Your task to perform on an android device: Open eBay Image 0: 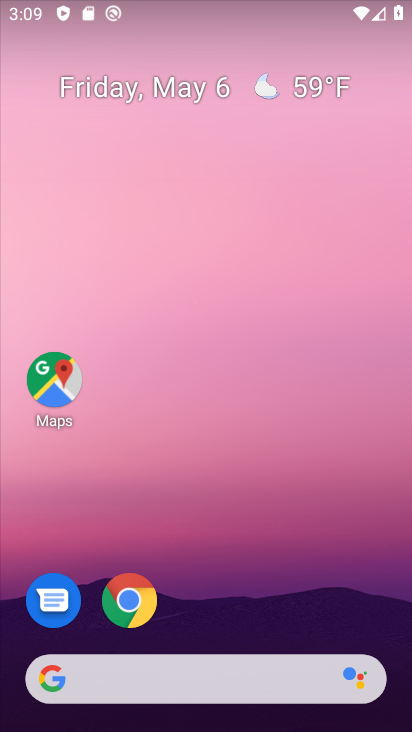
Step 0: click (143, 596)
Your task to perform on an android device: Open eBay Image 1: 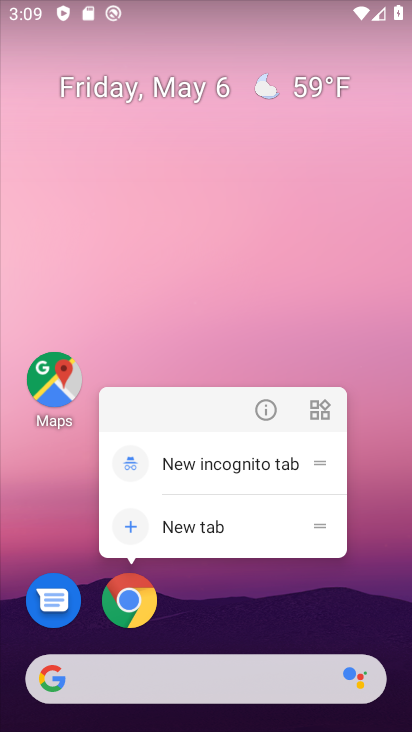
Step 1: click (131, 604)
Your task to perform on an android device: Open eBay Image 2: 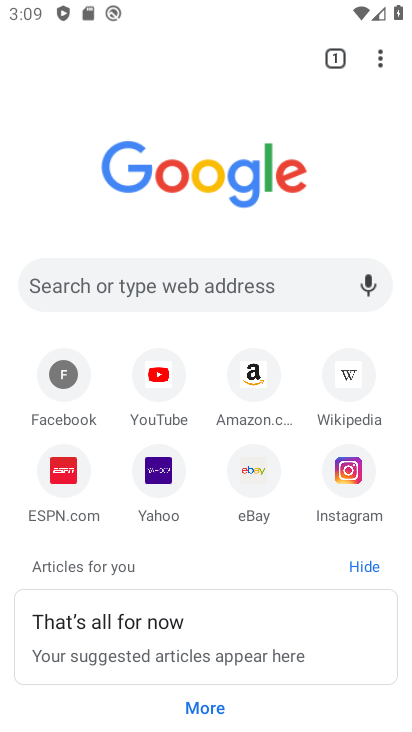
Step 2: click (196, 305)
Your task to perform on an android device: Open eBay Image 3: 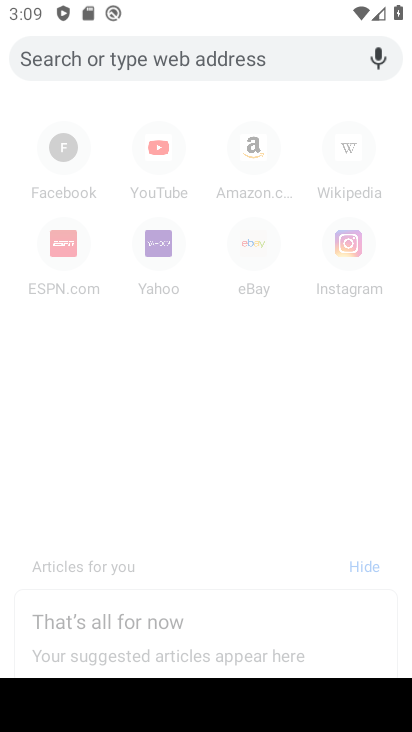
Step 3: type "eBay"
Your task to perform on an android device: Open eBay Image 4: 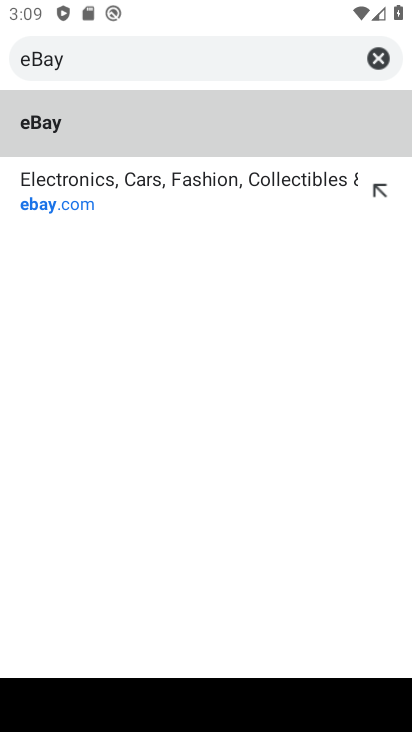
Step 4: click (103, 118)
Your task to perform on an android device: Open eBay Image 5: 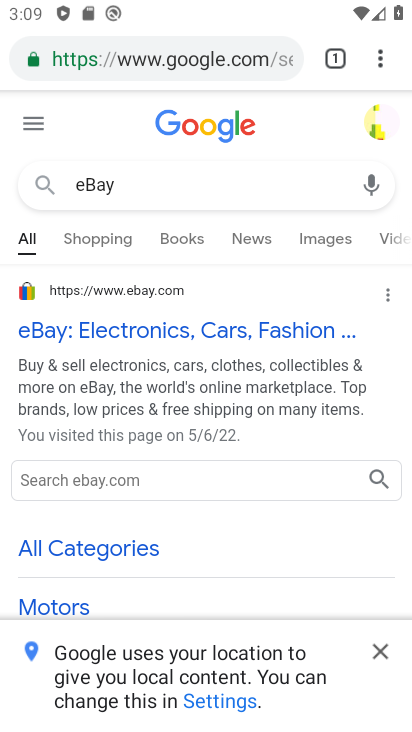
Step 5: task complete